Your task to perform on an android device: What's on my calendar today? Image 0: 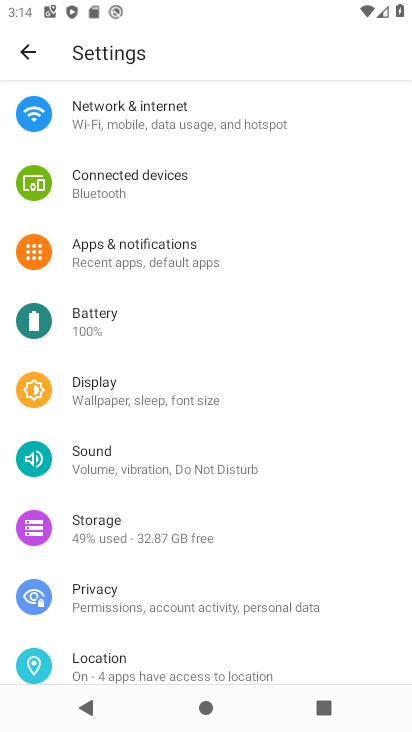
Step 0: press home button
Your task to perform on an android device: What's on my calendar today? Image 1: 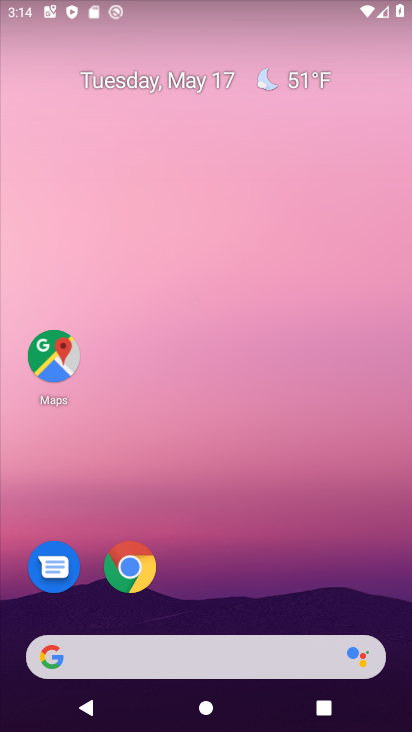
Step 1: drag from (227, 629) to (144, 4)
Your task to perform on an android device: What's on my calendar today? Image 2: 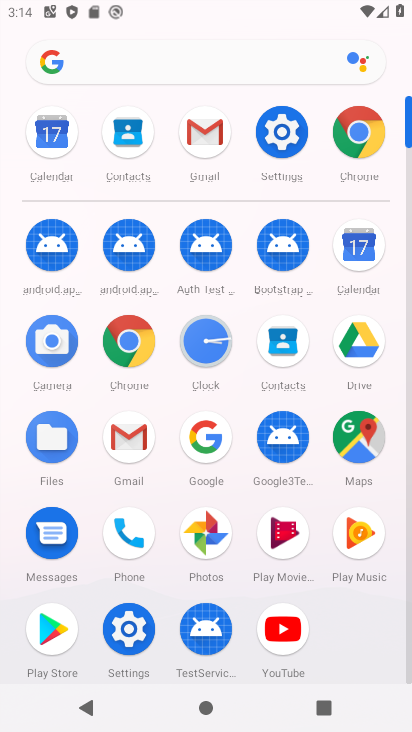
Step 2: click (357, 259)
Your task to perform on an android device: What's on my calendar today? Image 3: 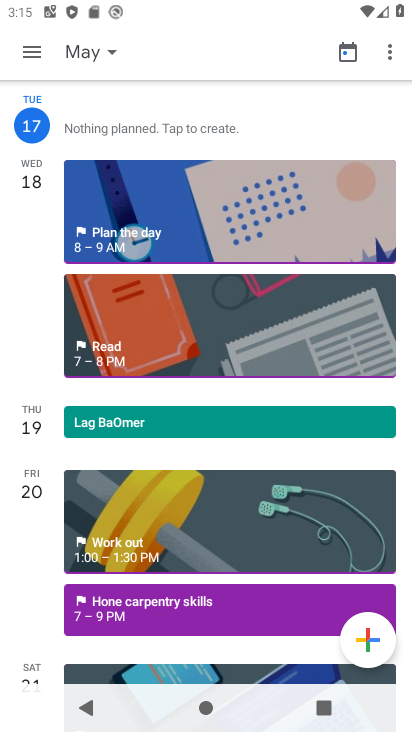
Step 3: task complete